Your task to perform on an android device: Show the shopping cart on costco.com. Search for dell alienware on costco.com, select the first entry, add it to the cart, then select checkout. Image 0: 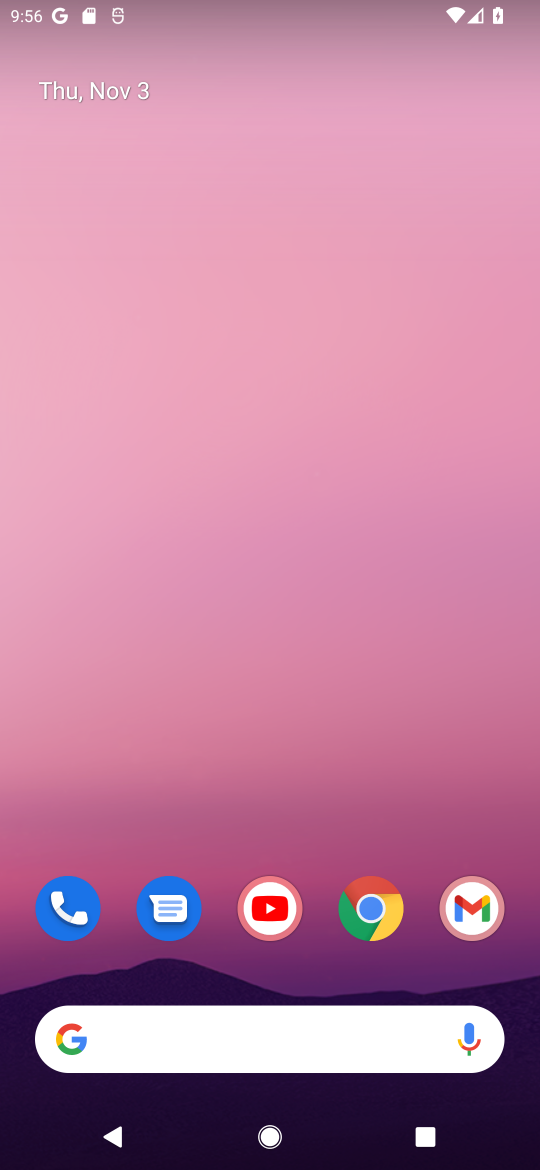
Step 0: click (377, 906)
Your task to perform on an android device: Show the shopping cart on costco.com. Search for dell alienware on costco.com, select the first entry, add it to the cart, then select checkout. Image 1: 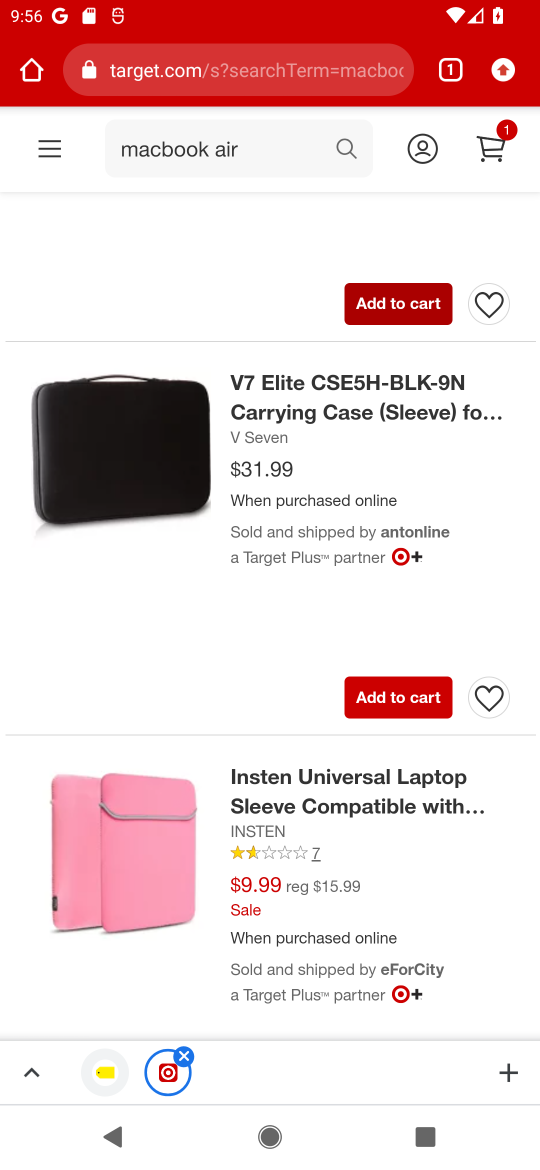
Step 1: click (258, 81)
Your task to perform on an android device: Show the shopping cart on costco.com. Search for dell alienware on costco.com, select the first entry, add it to the cart, then select checkout. Image 2: 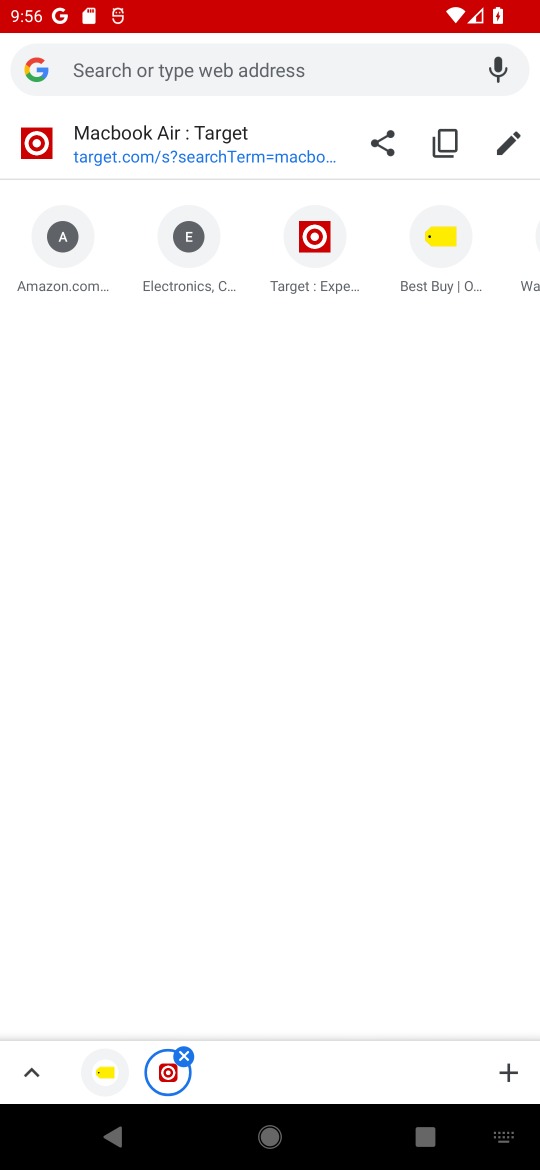
Step 2: type " costco.com"
Your task to perform on an android device: Show the shopping cart on costco.com. Search for dell alienware on costco.com, select the first entry, add it to the cart, then select checkout. Image 3: 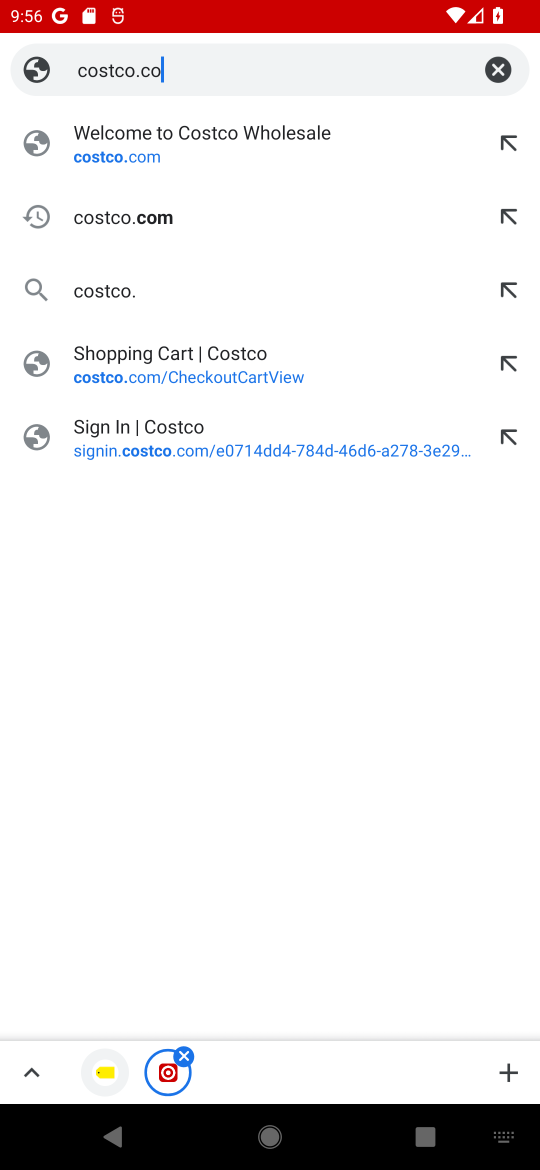
Step 3: press enter
Your task to perform on an android device: Show the shopping cart on costco.com. Search for dell alienware on costco.com, select the first entry, add it to the cart, then select checkout. Image 4: 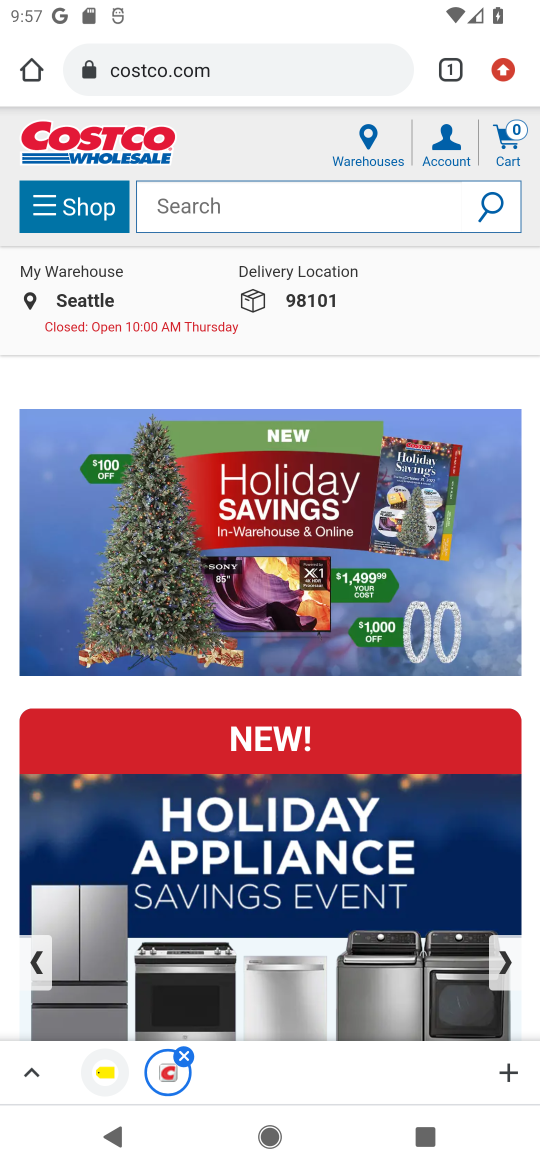
Step 4: click (513, 143)
Your task to perform on an android device: Show the shopping cart on costco.com. Search for dell alienware on costco.com, select the first entry, add it to the cart, then select checkout. Image 5: 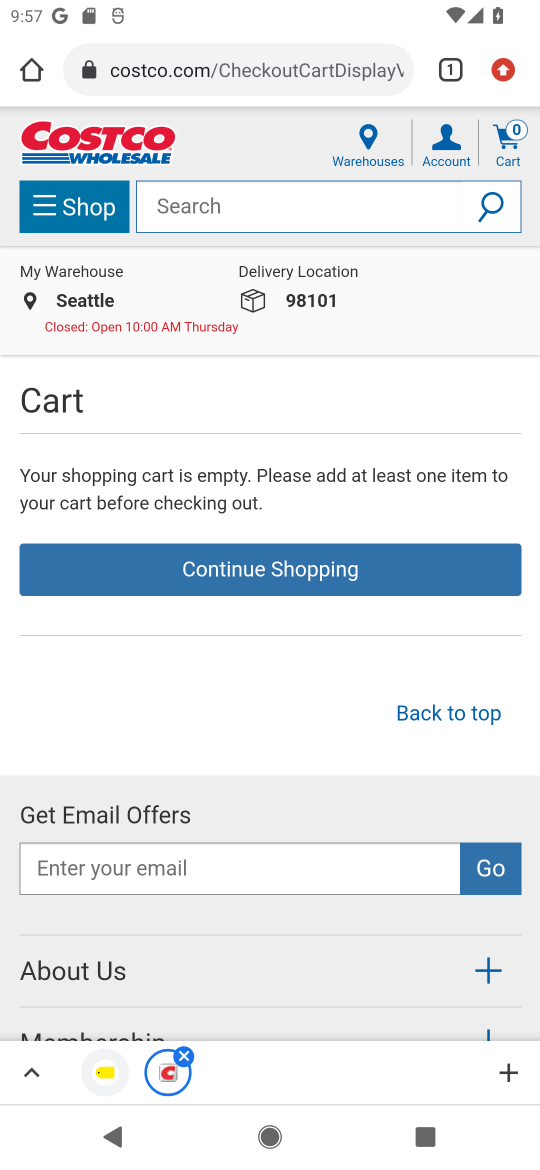
Step 5: click (311, 211)
Your task to perform on an android device: Show the shopping cart on costco.com. Search for dell alienware on costco.com, select the first entry, add it to the cart, then select checkout. Image 6: 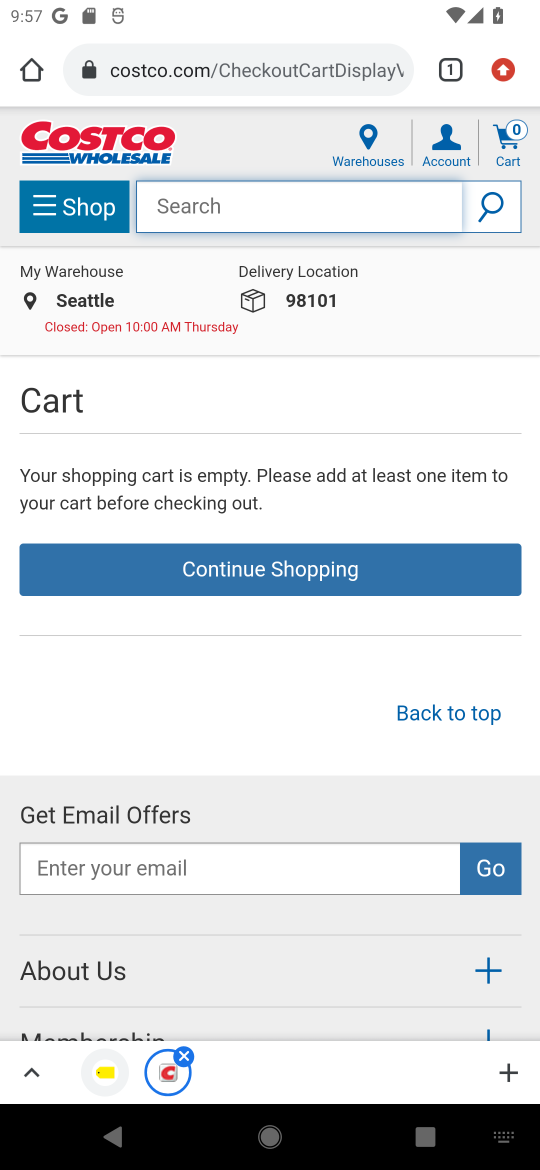
Step 6: type "dell alienware"
Your task to perform on an android device: Show the shopping cart on costco.com. Search for dell alienware on costco.com, select the first entry, add it to the cart, then select checkout. Image 7: 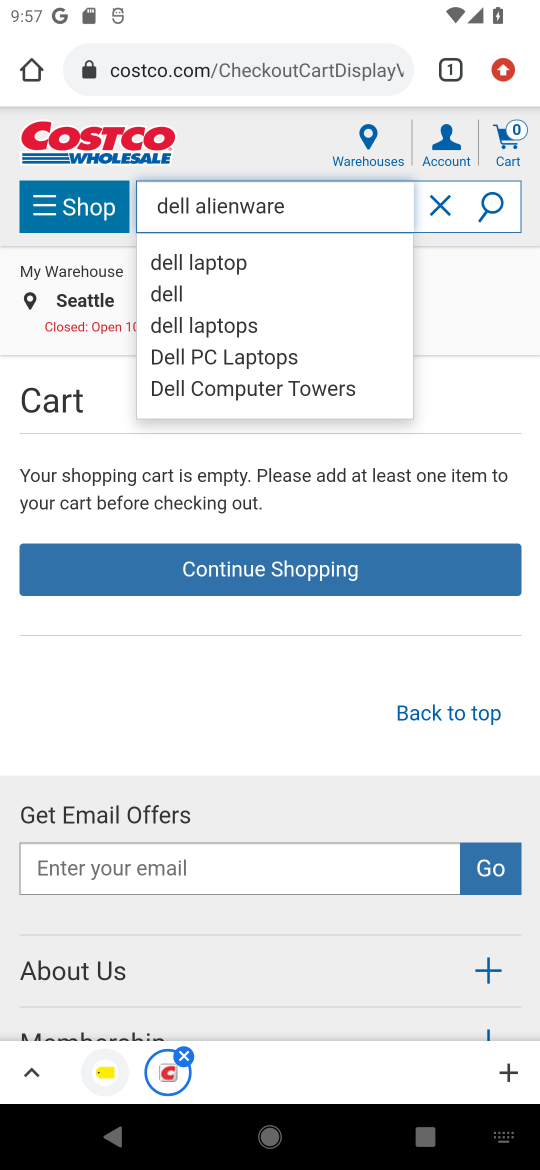
Step 7: click (508, 298)
Your task to perform on an android device: Show the shopping cart on costco.com. Search for dell alienware on costco.com, select the first entry, add it to the cart, then select checkout. Image 8: 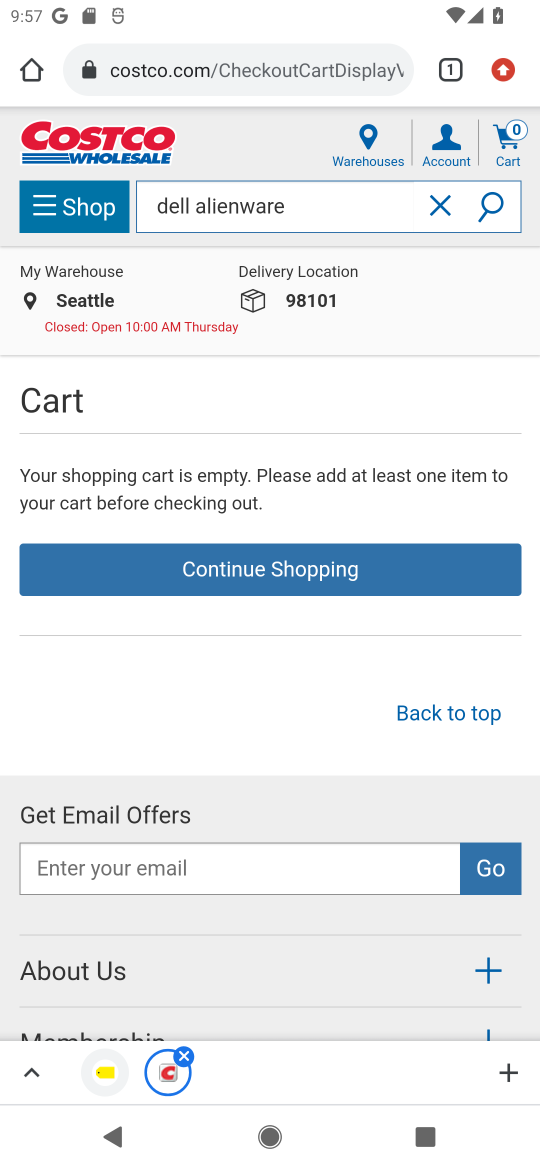
Step 8: click (467, 340)
Your task to perform on an android device: Show the shopping cart on costco.com. Search for dell alienware on costco.com, select the first entry, add it to the cart, then select checkout. Image 9: 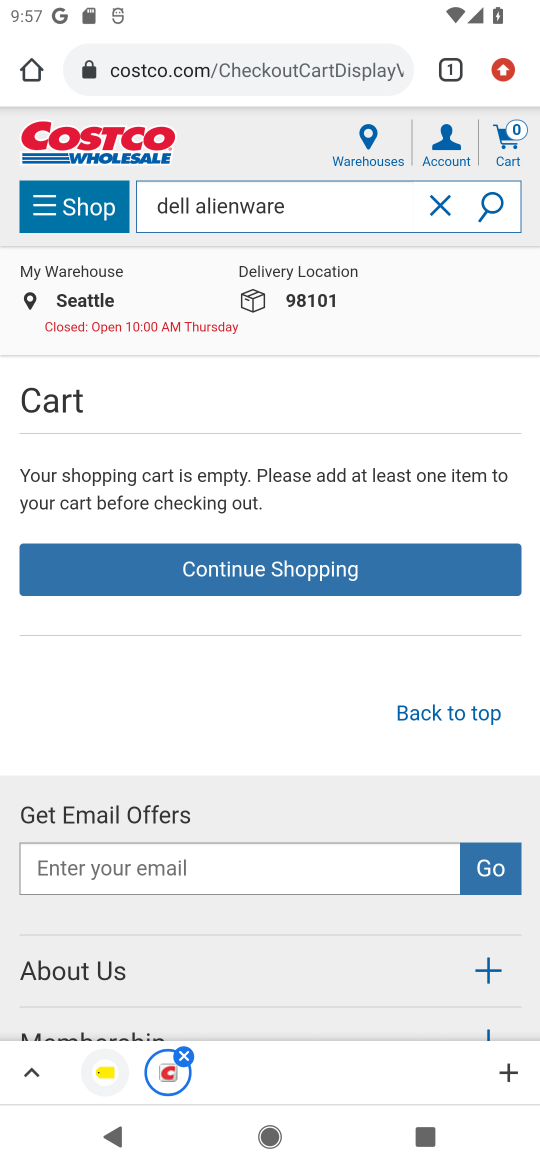
Step 9: task complete